Your task to perform on an android device: turn off improve location accuracy Image 0: 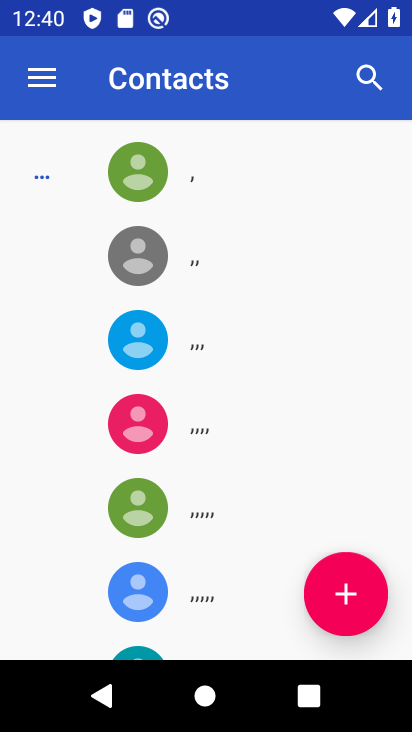
Step 0: press back button
Your task to perform on an android device: turn off improve location accuracy Image 1: 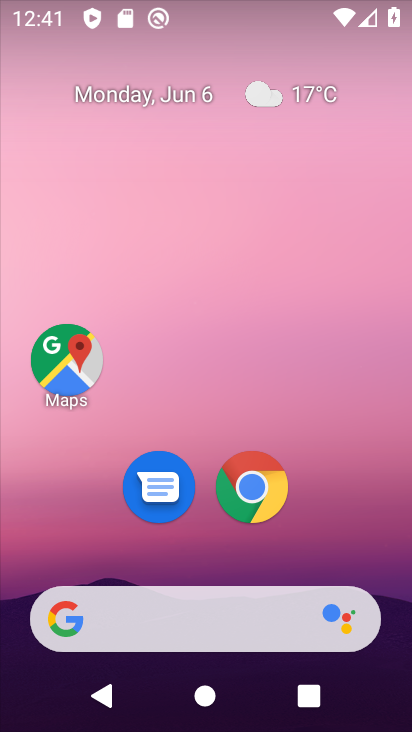
Step 1: drag from (182, 551) to (230, 105)
Your task to perform on an android device: turn off improve location accuracy Image 2: 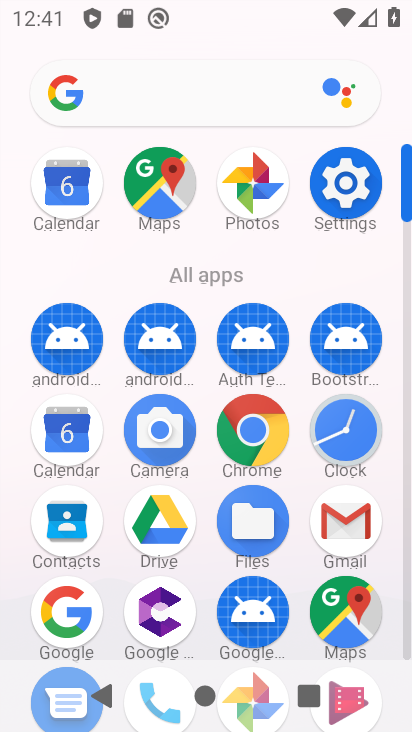
Step 2: click (354, 181)
Your task to perform on an android device: turn off improve location accuracy Image 3: 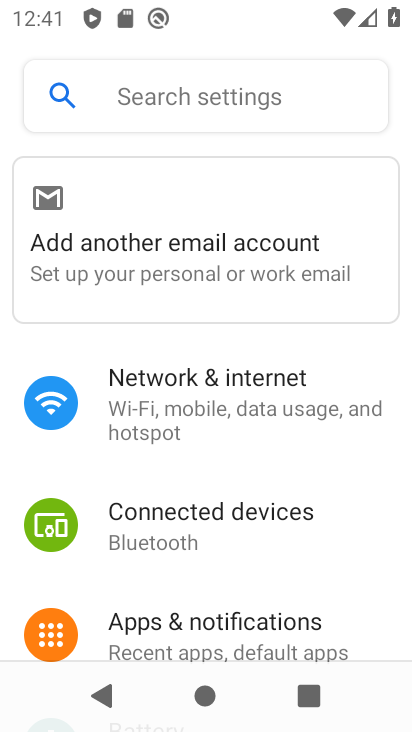
Step 3: drag from (168, 619) to (161, 115)
Your task to perform on an android device: turn off improve location accuracy Image 4: 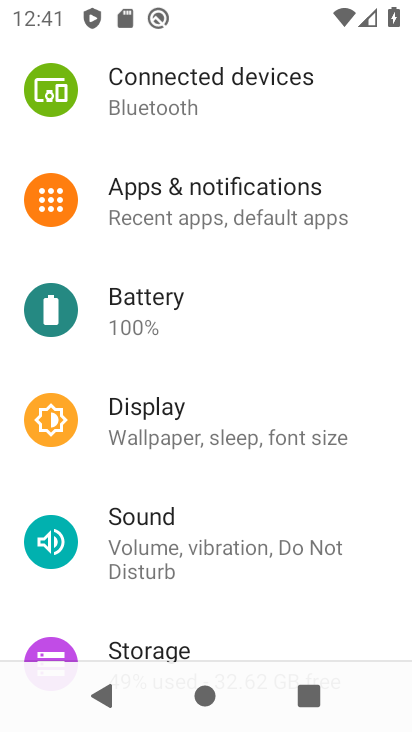
Step 4: drag from (174, 599) to (238, 93)
Your task to perform on an android device: turn off improve location accuracy Image 5: 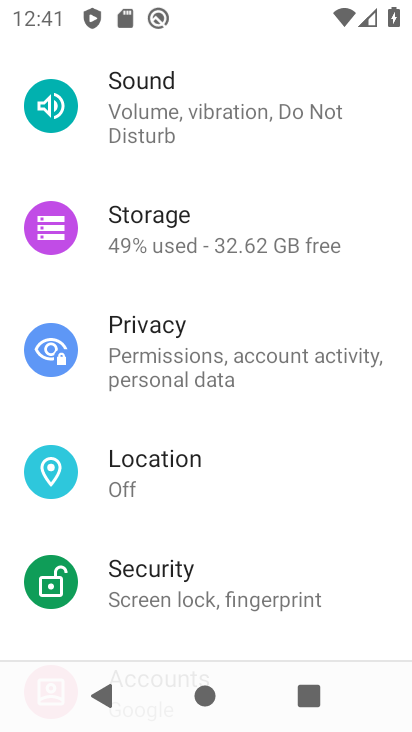
Step 5: click (115, 474)
Your task to perform on an android device: turn off improve location accuracy Image 6: 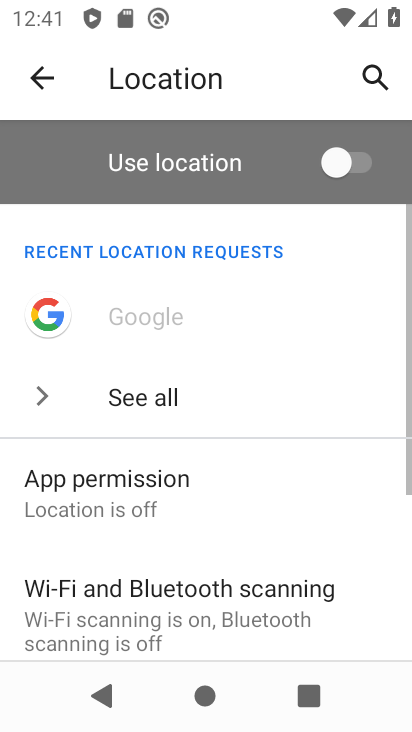
Step 6: drag from (205, 577) to (266, 69)
Your task to perform on an android device: turn off improve location accuracy Image 7: 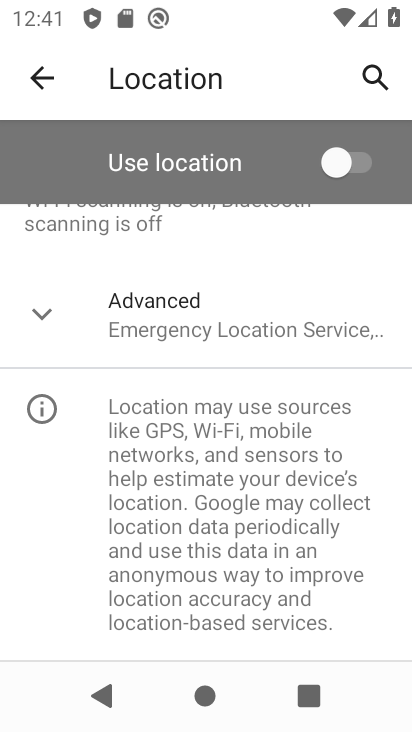
Step 7: click (199, 330)
Your task to perform on an android device: turn off improve location accuracy Image 8: 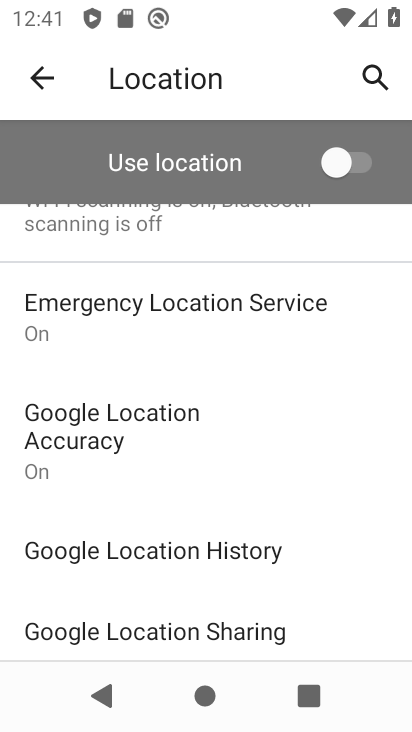
Step 8: click (102, 414)
Your task to perform on an android device: turn off improve location accuracy Image 9: 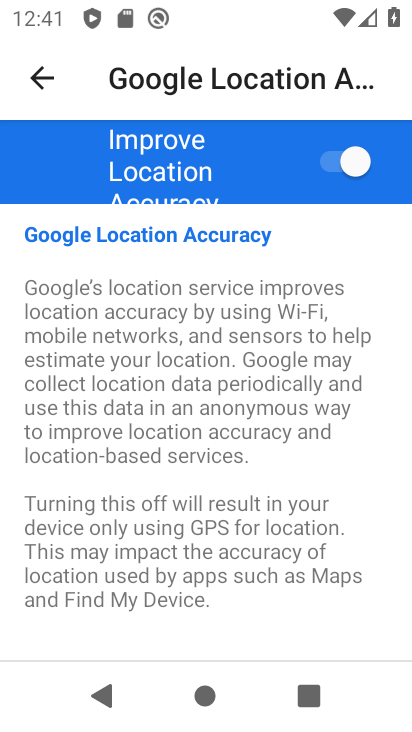
Step 9: click (342, 167)
Your task to perform on an android device: turn off improve location accuracy Image 10: 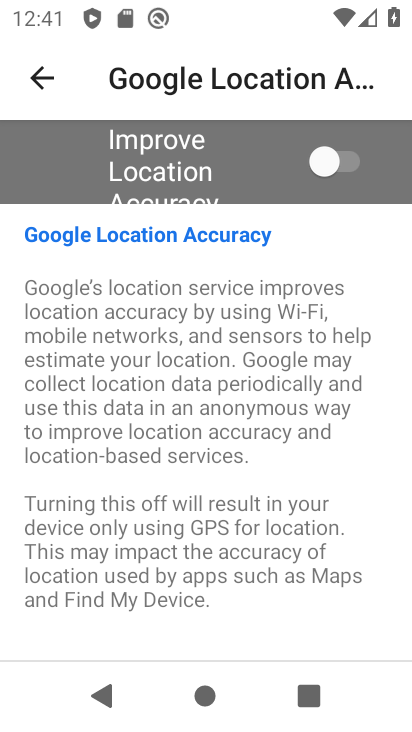
Step 10: task complete